Your task to perform on an android device: Open the calendar app, open the side menu, and click the "Day" option Image 0: 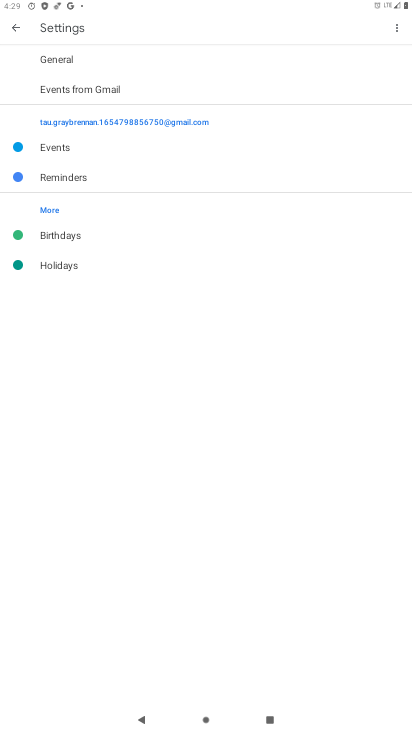
Step 0: press home button
Your task to perform on an android device: Open the calendar app, open the side menu, and click the "Day" option Image 1: 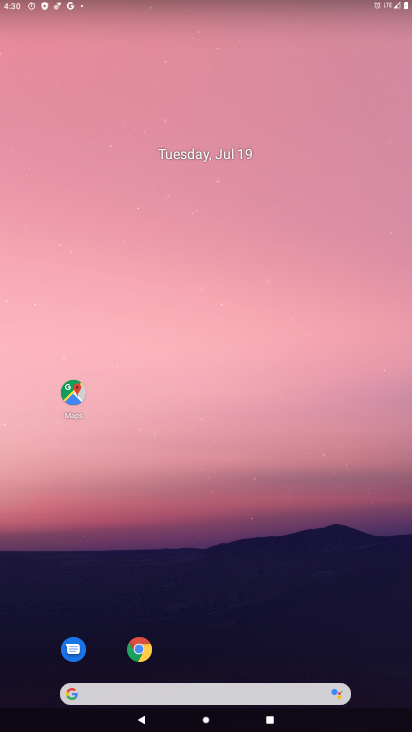
Step 1: drag from (331, 573) to (288, 8)
Your task to perform on an android device: Open the calendar app, open the side menu, and click the "Day" option Image 2: 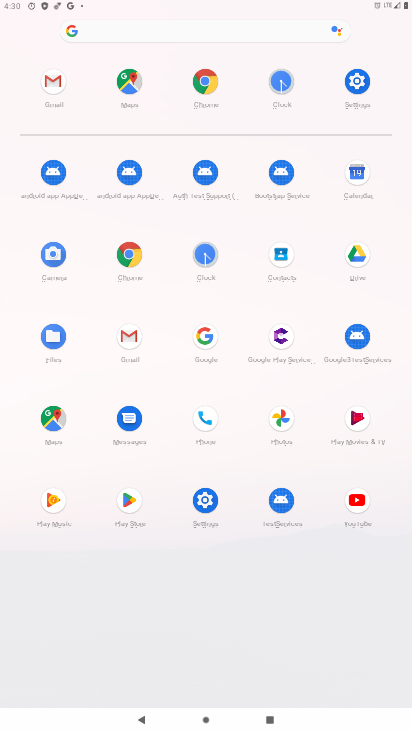
Step 2: click (357, 171)
Your task to perform on an android device: Open the calendar app, open the side menu, and click the "Day" option Image 3: 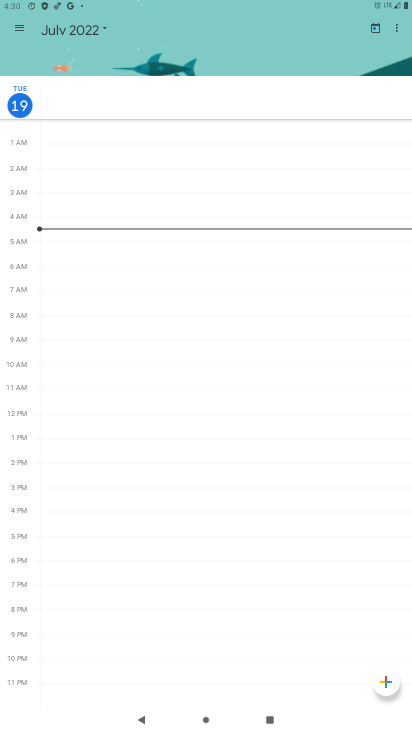
Step 3: click (22, 25)
Your task to perform on an android device: Open the calendar app, open the side menu, and click the "Day" option Image 4: 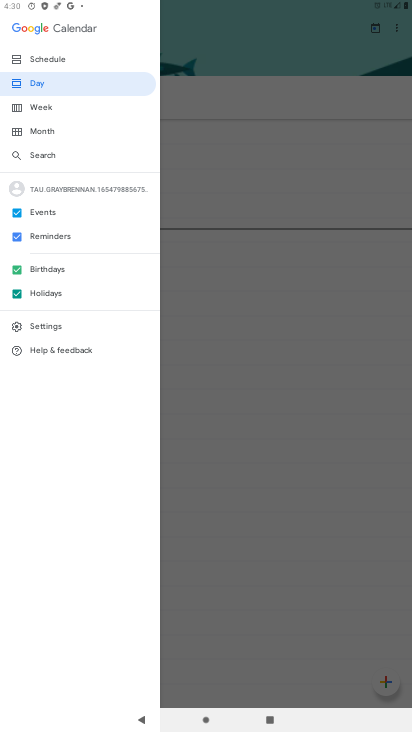
Step 4: click (46, 84)
Your task to perform on an android device: Open the calendar app, open the side menu, and click the "Day" option Image 5: 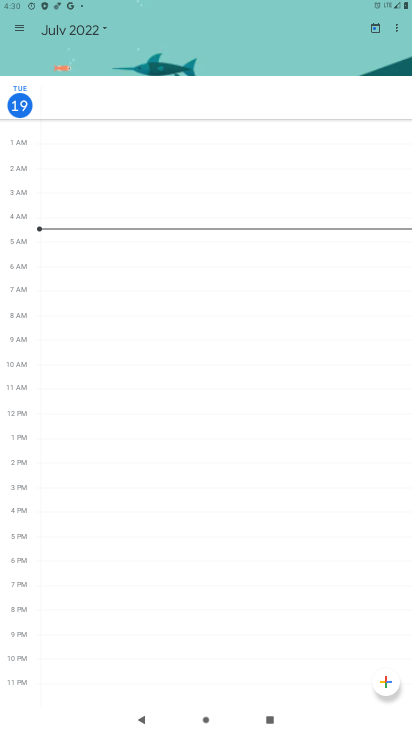
Step 5: task complete